Your task to perform on an android device: turn off location history Image 0: 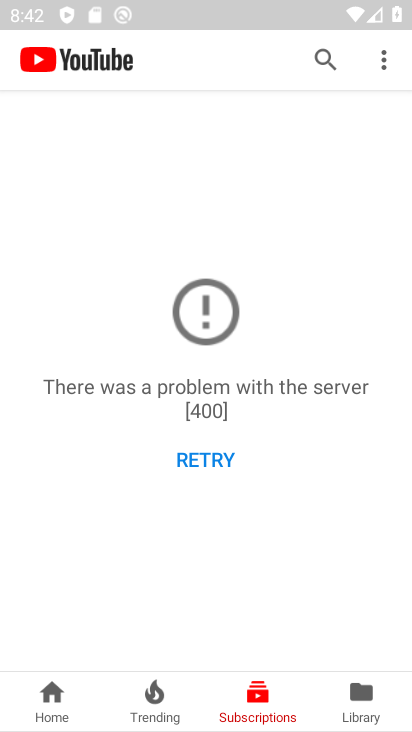
Step 0: press home button
Your task to perform on an android device: turn off location history Image 1: 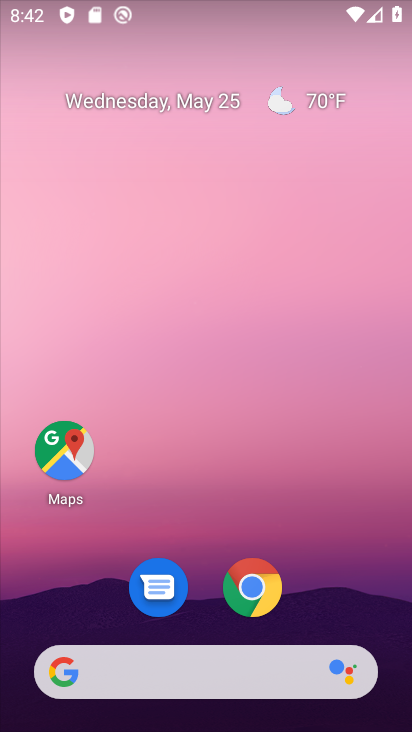
Step 1: drag from (218, 603) to (234, 95)
Your task to perform on an android device: turn off location history Image 2: 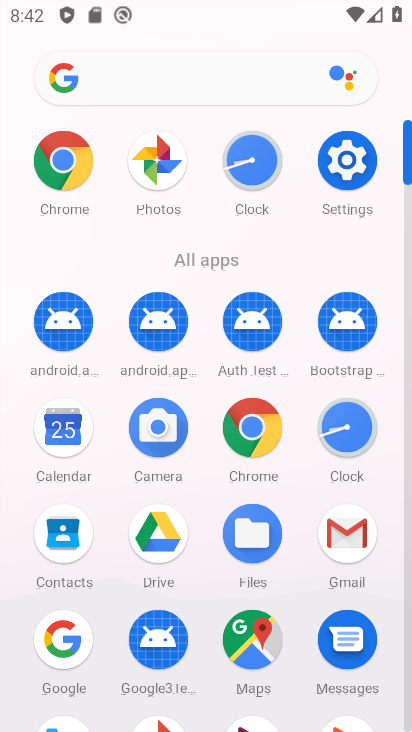
Step 2: click (336, 169)
Your task to perform on an android device: turn off location history Image 3: 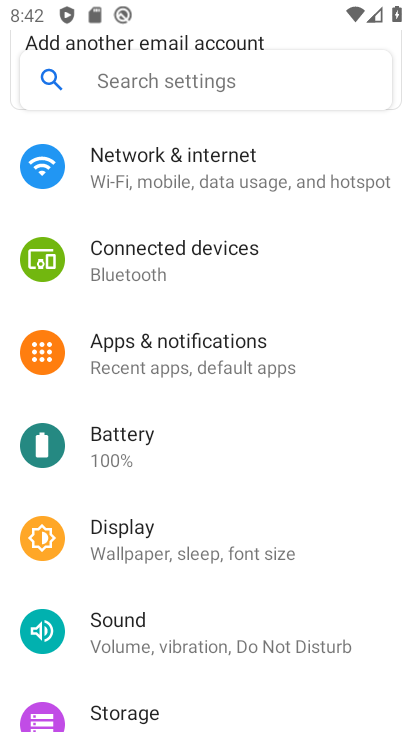
Step 3: drag from (190, 554) to (199, 321)
Your task to perform on an android device: turn off location history Image 4: 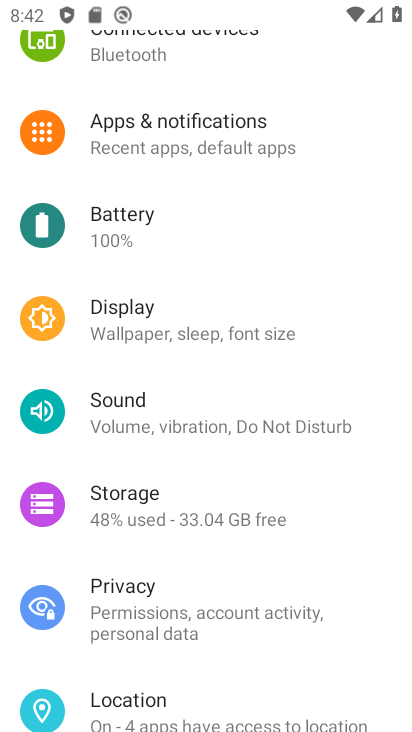
Step 4: click (133, 703)
Your task to perform on an android device: turn off location history Image 5: 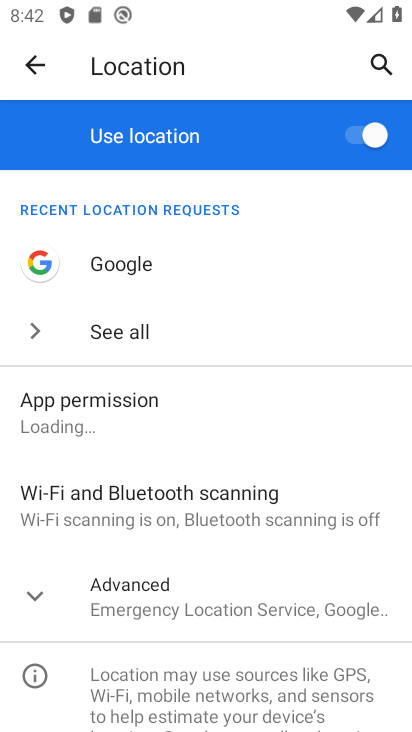
Step 5: click (164, 602)
Your task to perform on an android device: turn off location history Image 6: 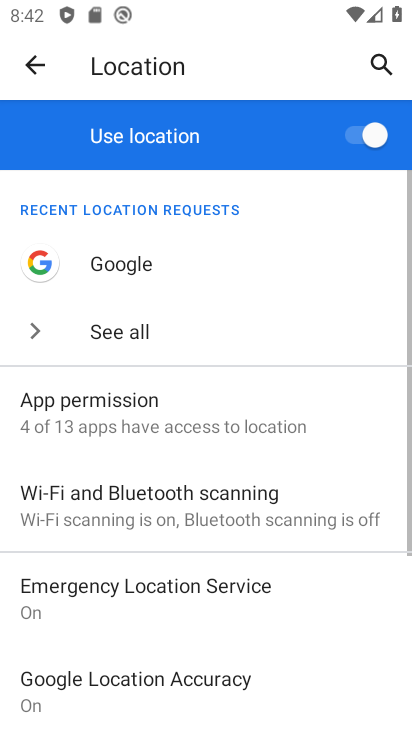
Step 6: drag from (247, 613) to (285, 286)
Your task to perform on an android device: turn off location history Image 7: 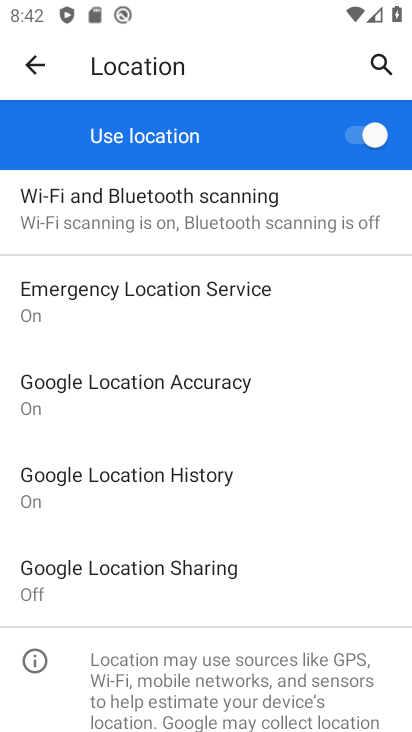
Step 7: click (183, 470)
Your task to perform on an android device: turn off location history Image 8: 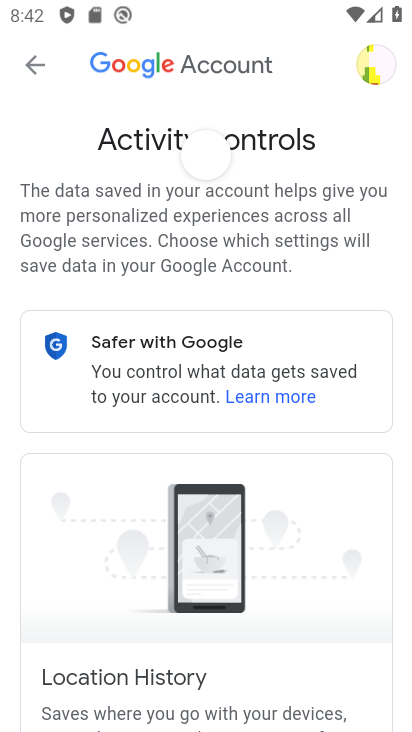
Step 8: task complete